Your task to perform on an android device: Open Amazon Image 0: 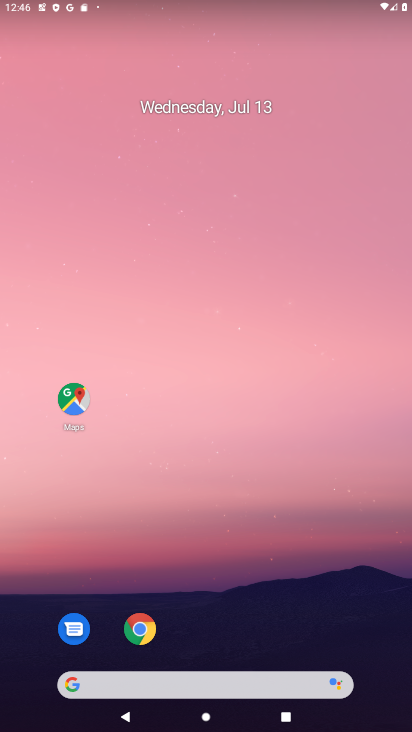
Step 0: drag from (251, 552) to (249, 241)
Your task to perform on an android device: Open Amazon Image 1: 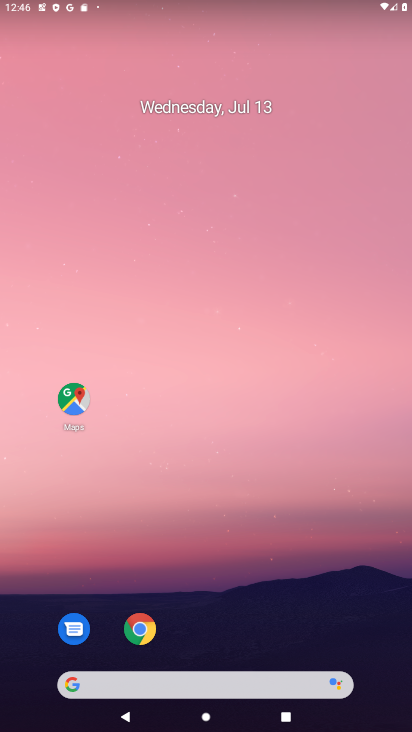
Step 1: drag from (175, 643) to (182, 330)
Your task to perform on an android device: Open Amazon Image 2: 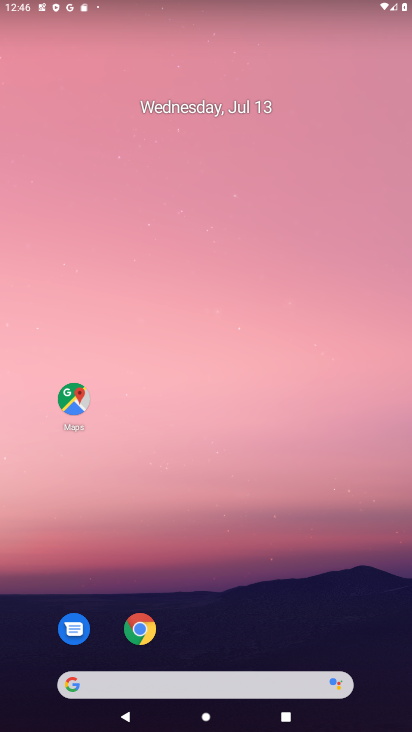
Step 2: drag from (194, 646) to (238, 293)
Your task to perform on an android device: Open Amazon Image 3: 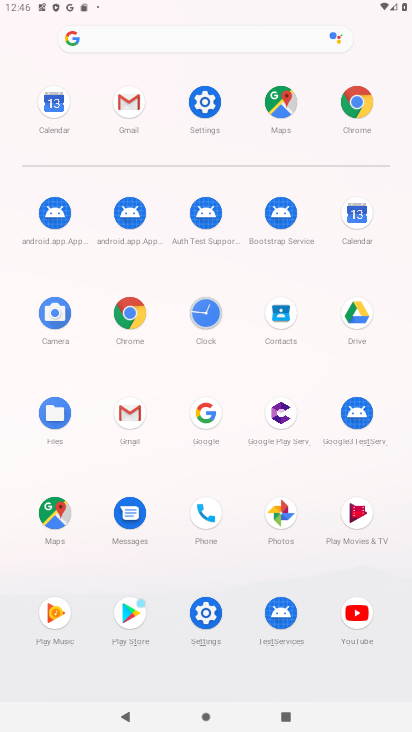
Step 3: click (354, 95)
Your task to perform on an android device: Open Amazon Image 4: 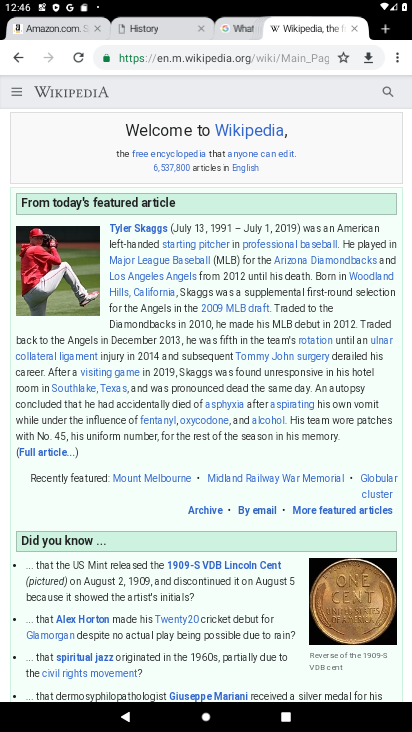
Step 4: click (390, 15)
Your task to perform on an android device: Open Amazon Image 5: 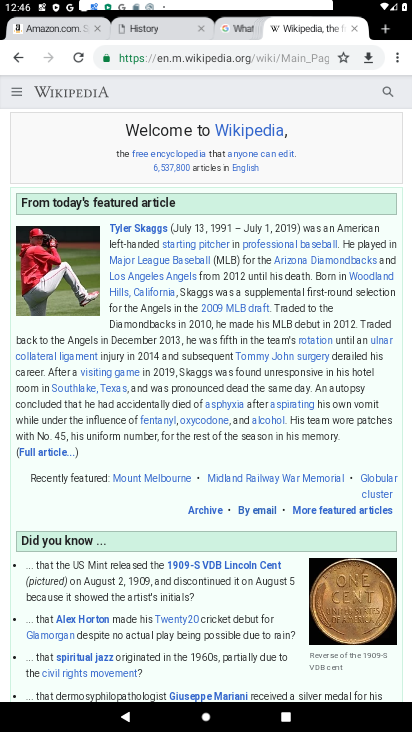
Step 5: click (390, 21)
Your task to perform on an android device: Open Amazon Image 6: 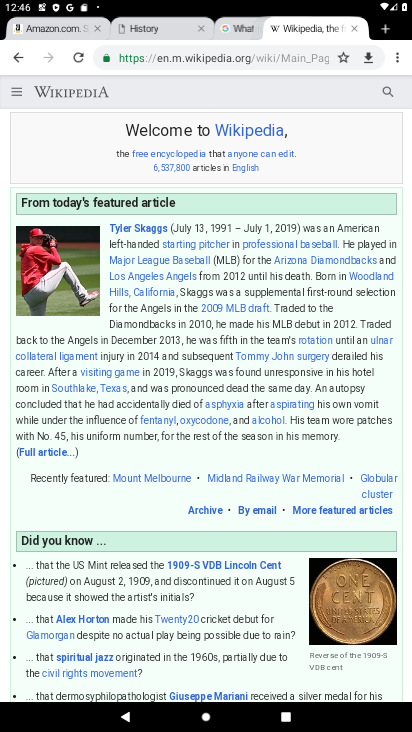
Step 6: click (386, 28)
Your task to perform on an android device: Open Amazon Image 7: 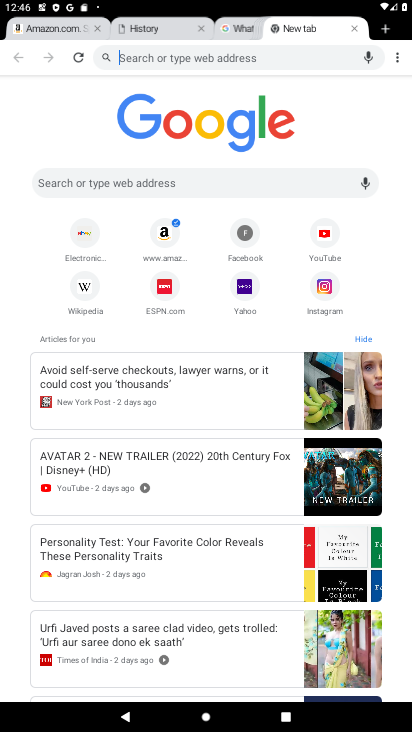
Step 7: click (159, 222)
Your task to perform on an android device: Open Amazon Image 8: 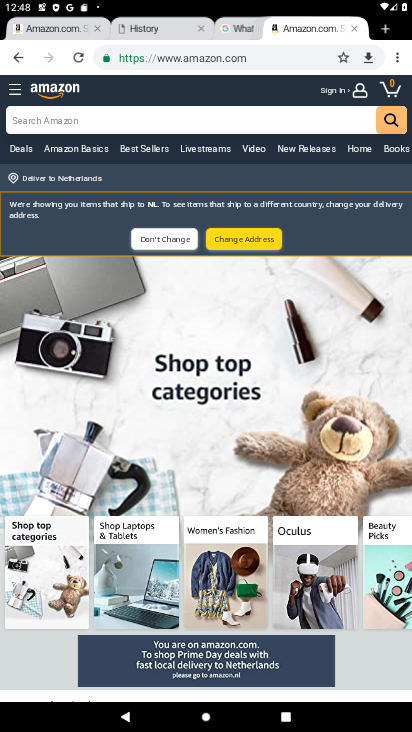
Step 8: task complete